Your task to perform on an android device: Go to Maps Image 0: 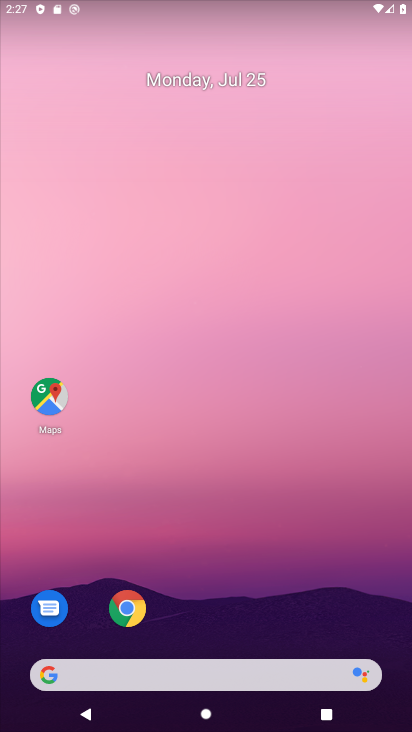
Step 0: click (36, 398)
Your task to perform on an android device: Go to Maps Image 1: 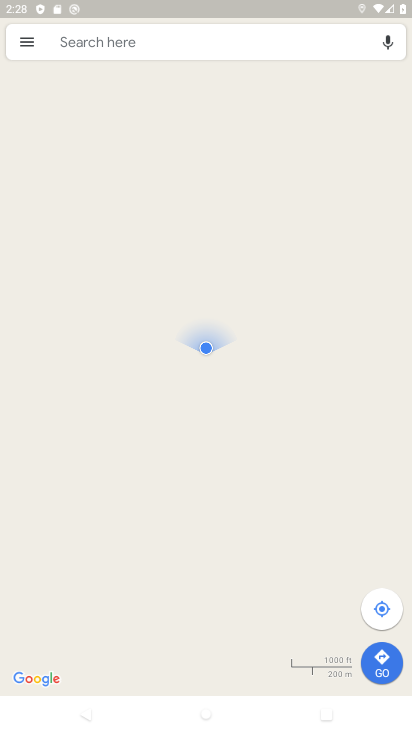
Step 1: task complete